Your task to perform on an android device: toggle airplane mode Image 0: 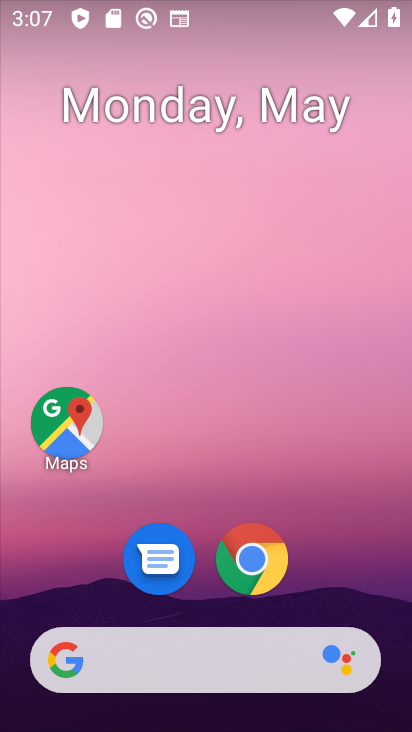
Step 0: drag from (76, 626) to (212, 112)
Your task to perform on an android device: toggle airplane mode Image 1: 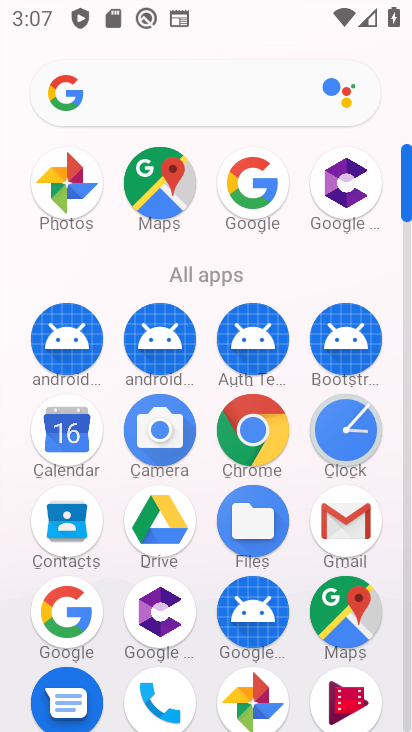
Step 1: drag from (156, 623) to (209, 402)
Your task to perform on an android device: toggle airplane mode Image 2: 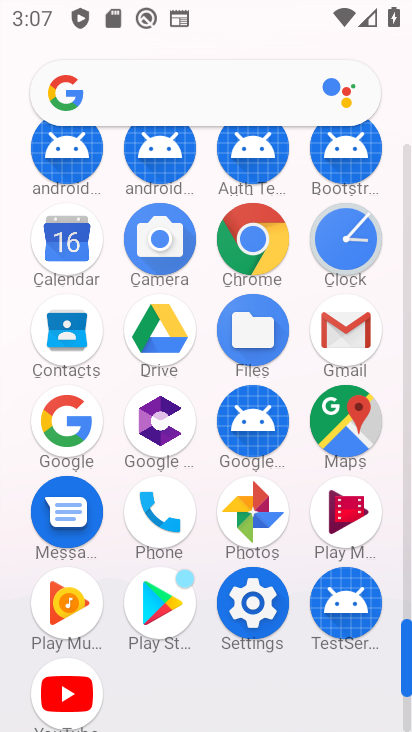
Step 2: click (248, 620)
Your task to perform on an android device: toggle airplane mode Image 3: 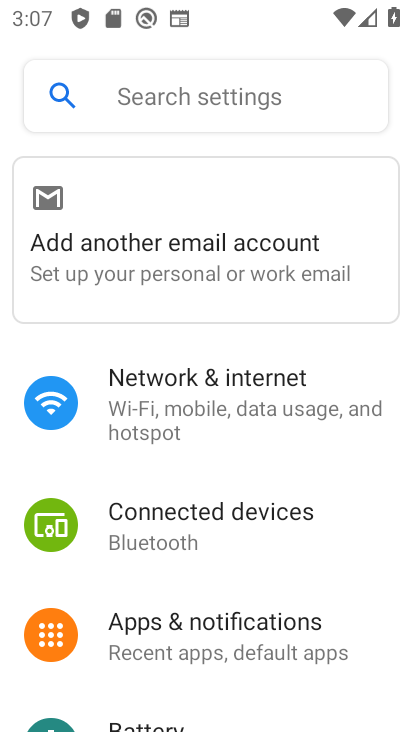
Step 3: click (238, 381)
Your task to perform on an android device: toggle airplane mode Image 4: 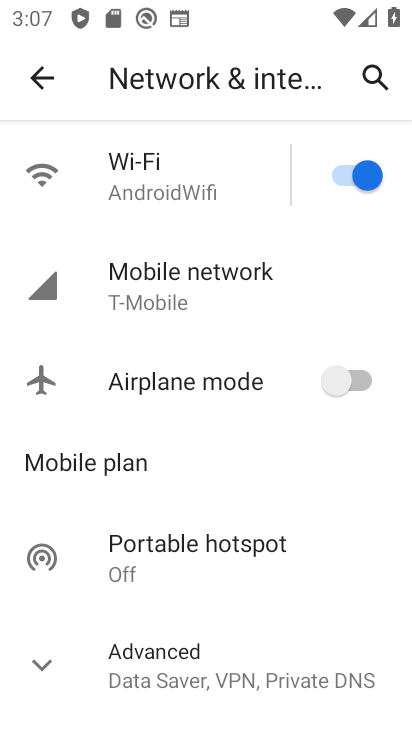
Step 4: click (366, 396)
Your task to perform on an android device: toggle airplane mode Image 5: 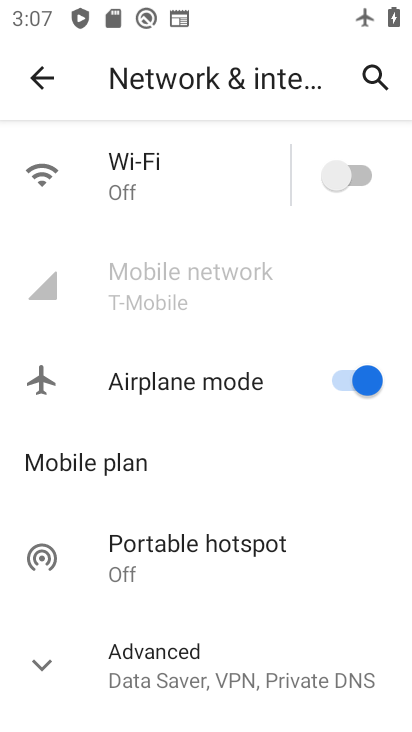
Step 5: task complete